Your task to perform on an android device: turn on improve location accuracy Image 0: 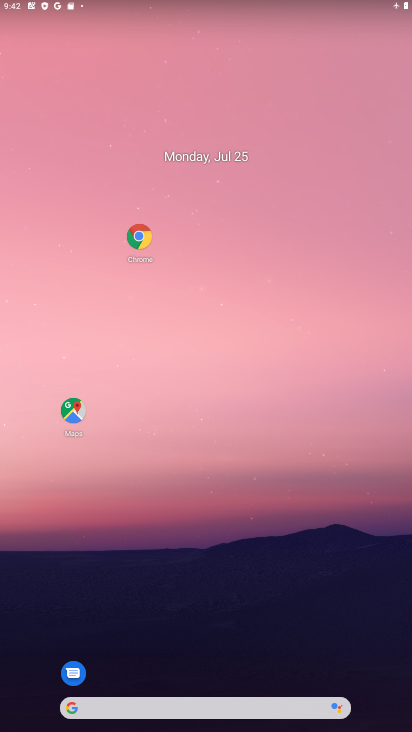
Step 0: drag from (242, 678) to (213, 3)
Your task to perform on an android device: turn on improve location accuracy Image 1: 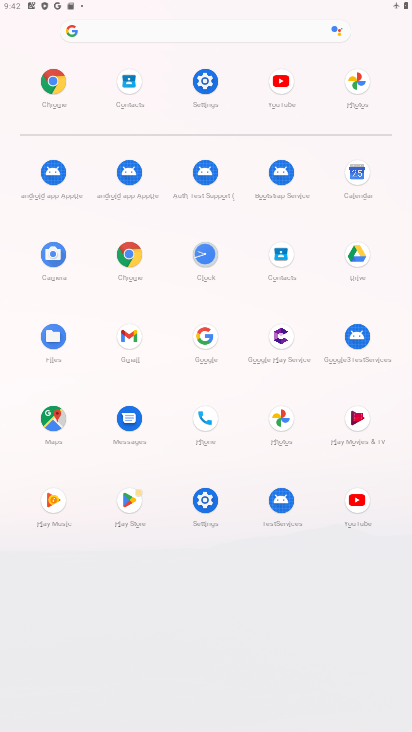
Step 1: click (200, 99)
Your task to perform on an android device: turn on improve location accuracy Image 2: 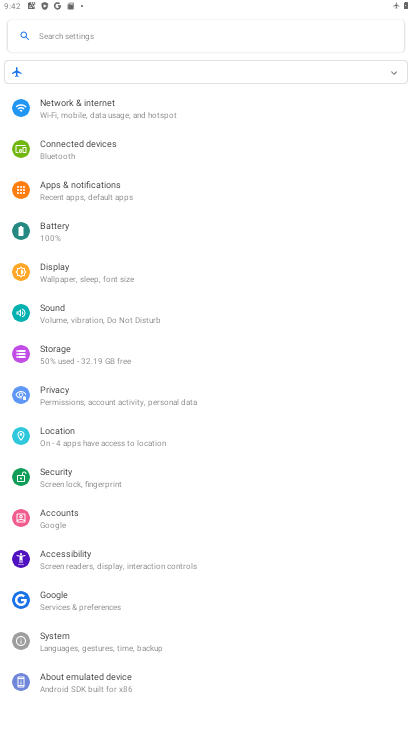
Step 2: click (168, 445)
Your task to perform on an android device: turn on improve location accuracy Image 3: 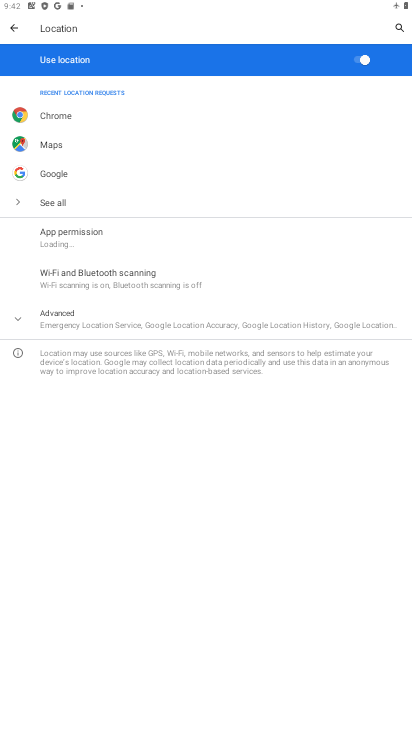
Step 3: task complete